Your task to perform on an android device: delete the emails in spam in the gmail app Image 0: 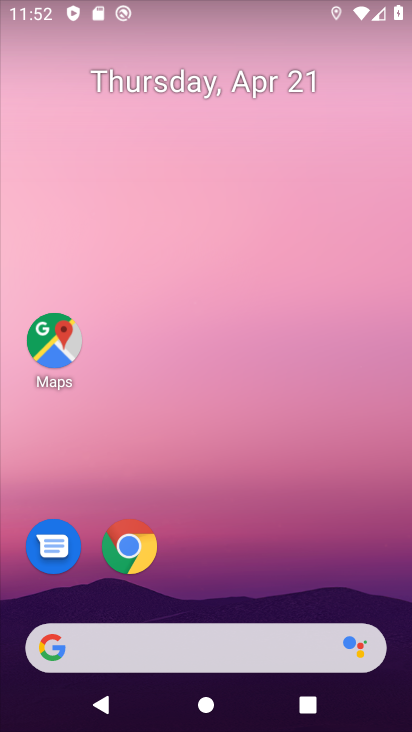
Step 0: drag from (211, 727) to (177, 120)
Your task to perform on an android device: delete the emails in spam in the gmail app Image 1: 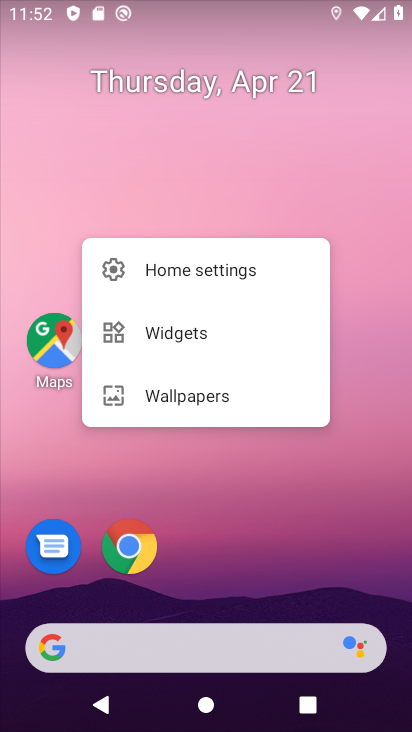
Step 1: click (316, 496)
Your task to perform on an android device: delete the emails in spam in the gmail app Image 2: 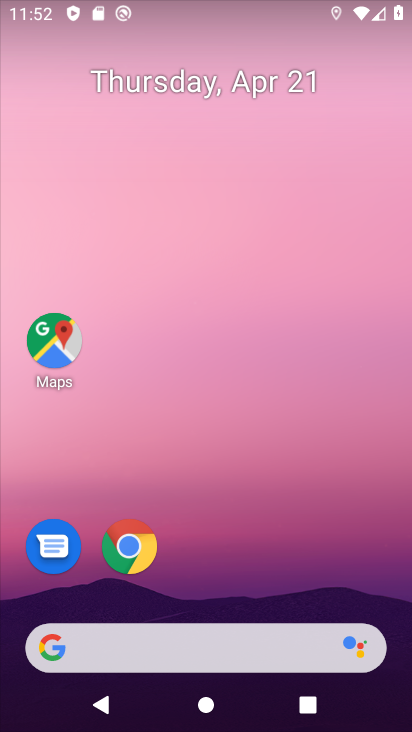
Step 2: drag from (210, 662) to (181, 160)
Your task to perform on an android device: delete the emails in spam in the gmail app Image 3: 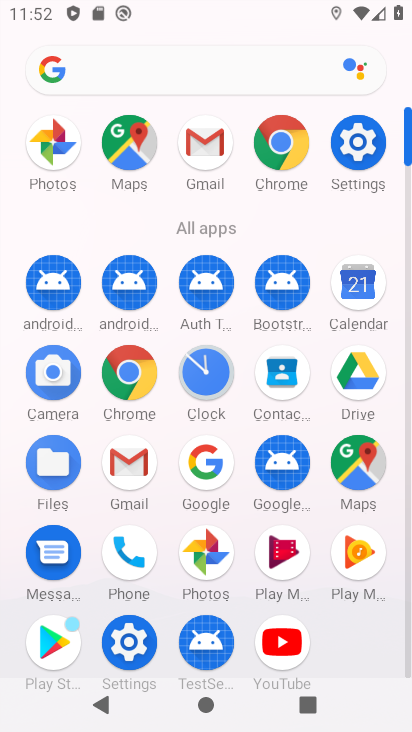
Step 3: click (201, 144)
Your task to perform on an android device: delete the emails in spam in the gmail app Image 4: 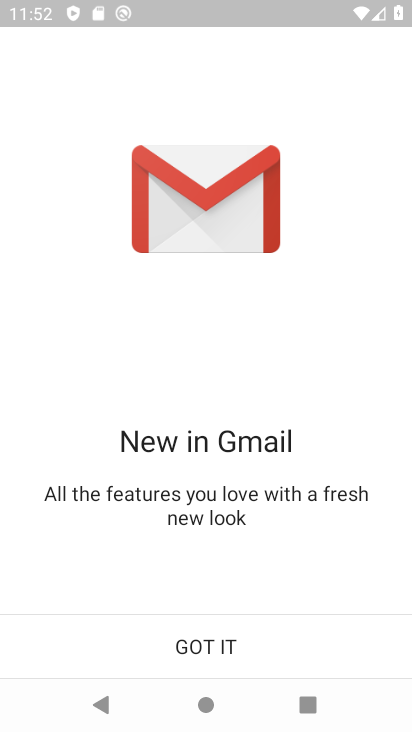
Step 4: click (214, 648)
Your task to perform on an android device: delete the emails in spam in the gmail app Image 5: 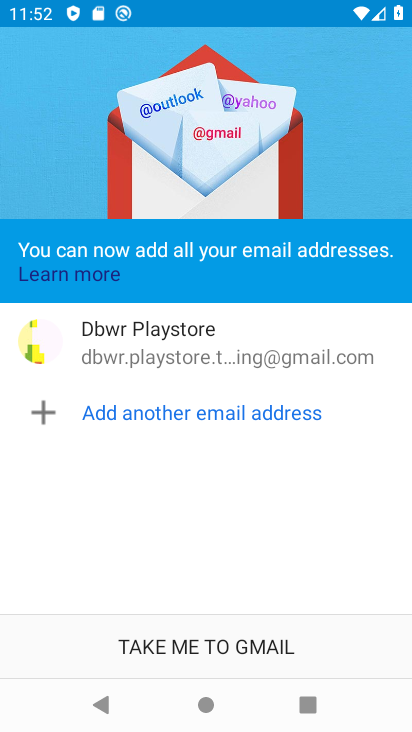
Step 5: click (210, 643)
Your task to perform on an android device: delete the emails in spam in the gmail app Image 6: 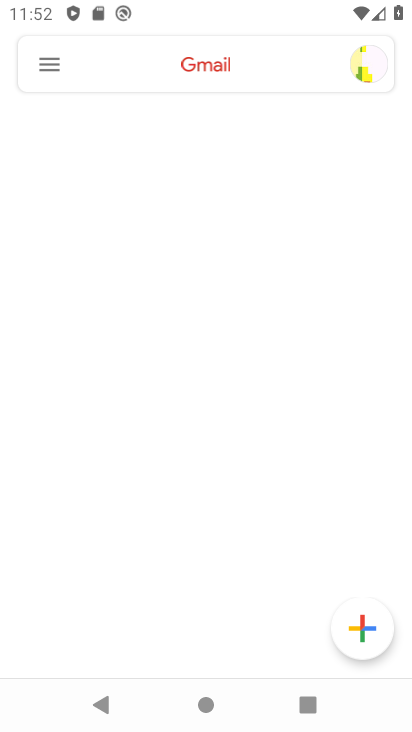
Step 6: click (209, 641)
Your task to perform on an android device: delete the emails in spam in the gmail app Image 7: 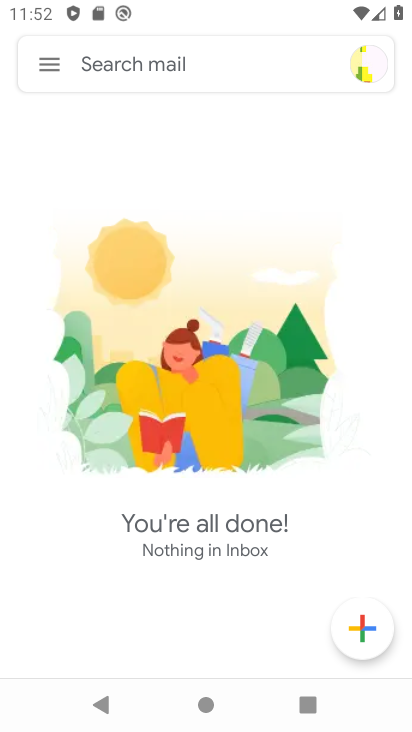
Step 7: click (43, 66)
Your task to perform on an android device: delete the emails in spam in the gmail app Image 8: 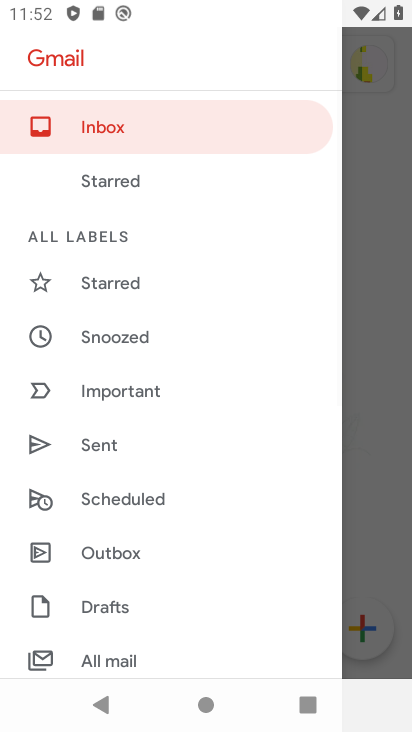
Step 8: drag from (161, 639) to (150, 264)
Your task to perform on an android device: delete the emails in spam in the gmail app Image 9: 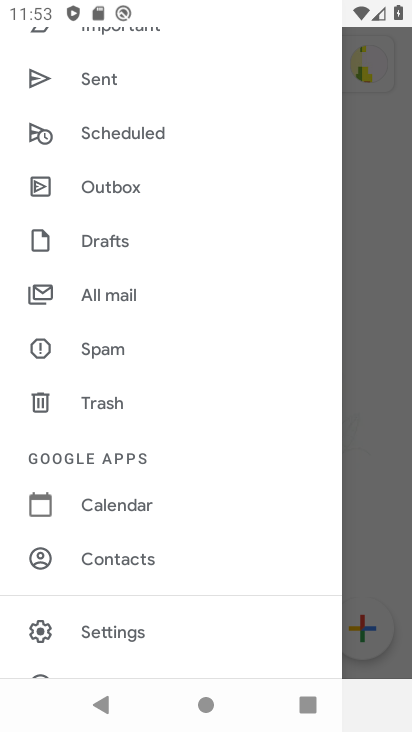
Step 9: click (99, 348)
Your task to perform on an android device: delete the emails in spam in the gmail app Image 10: 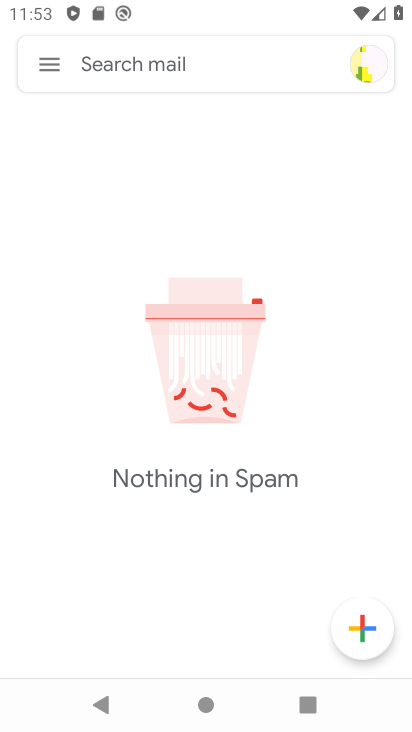
Step 10: task complete